Your task to perform on an android device: Open wifi settings Image 0: 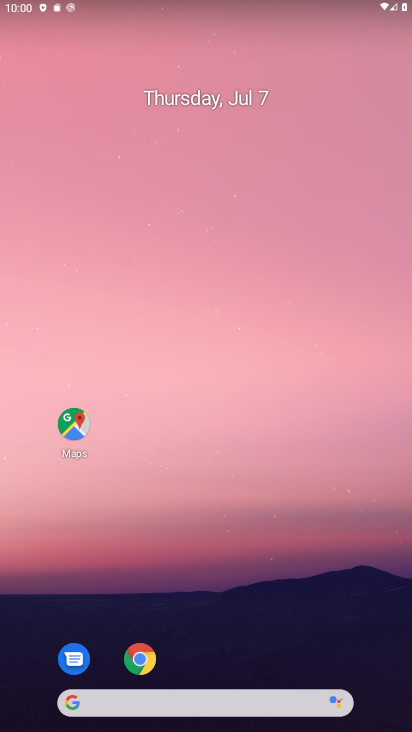
Step 0: drag from (166, 699) to (217, 49)
Your task to perform on an android device: Open wifi settings Image 1: 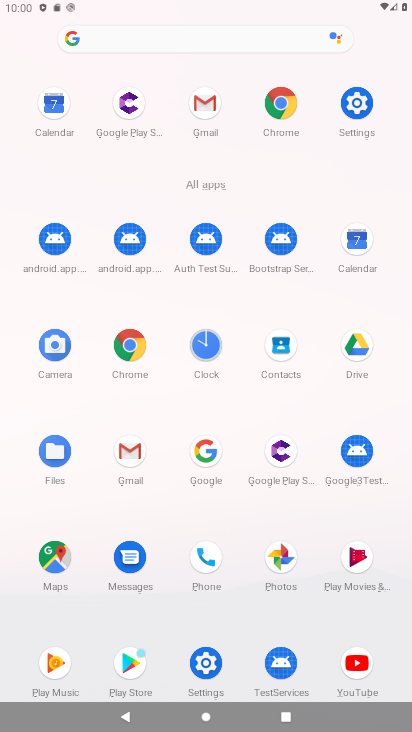
Step 1: click (364, 100)
Your task to perform on an android device: Open wifi settings Image 2: 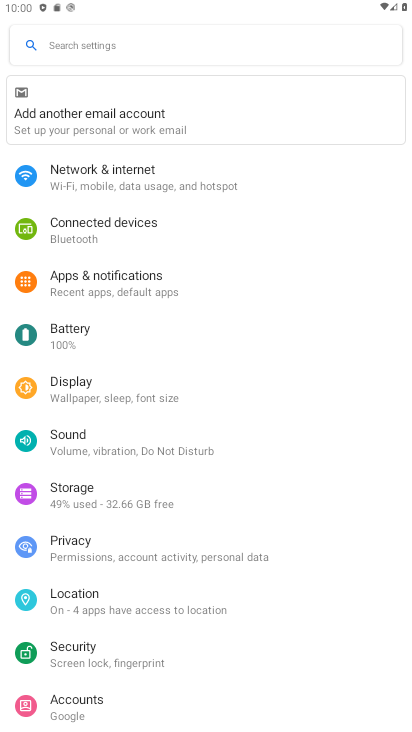
Step 2: click (142, 177)
Your task to perform on an android device: Open wifi settings Image 3: 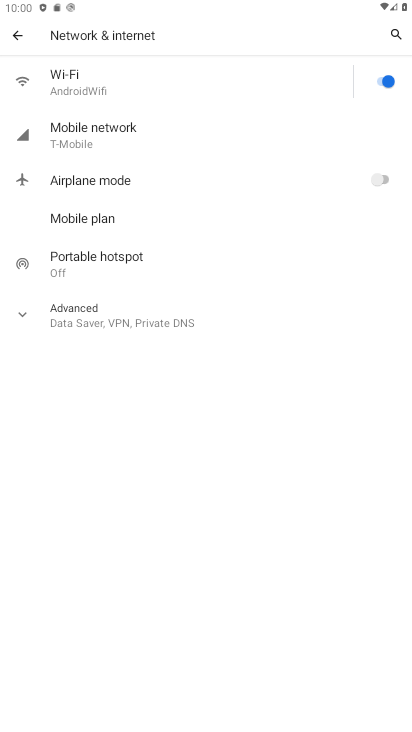
Step 3: click (126, 85)
Your task to perform on an android device: Open wifi settings Image 4: 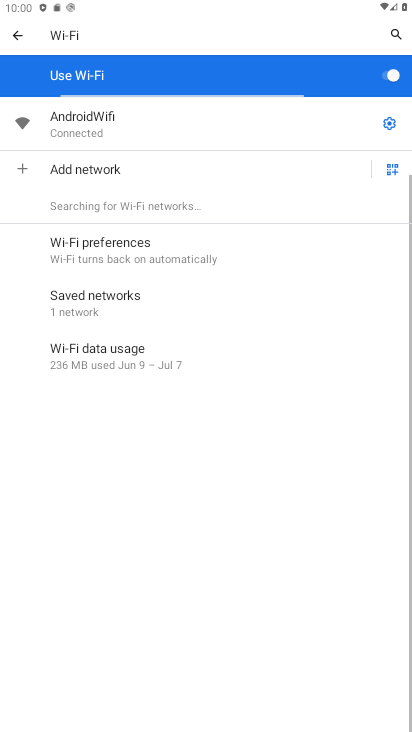
Step 4: task complete